Your task to perform on an android device: find photos in the google photos app Image 0: 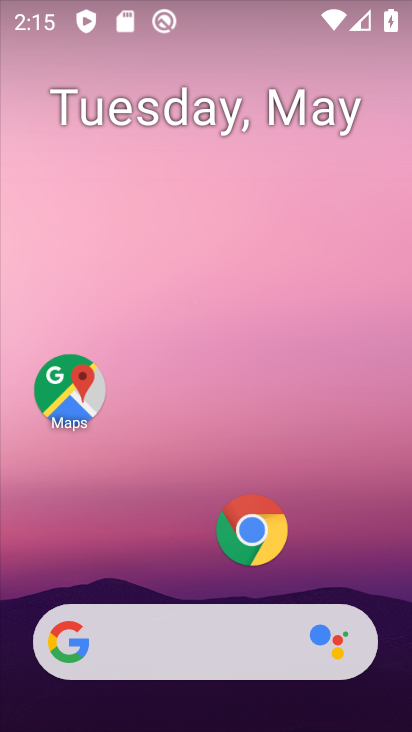
Step 0: drag from (201, 576) to (200, 111)
Your task to perform on an android device: find photos in the google photos app Image 1: 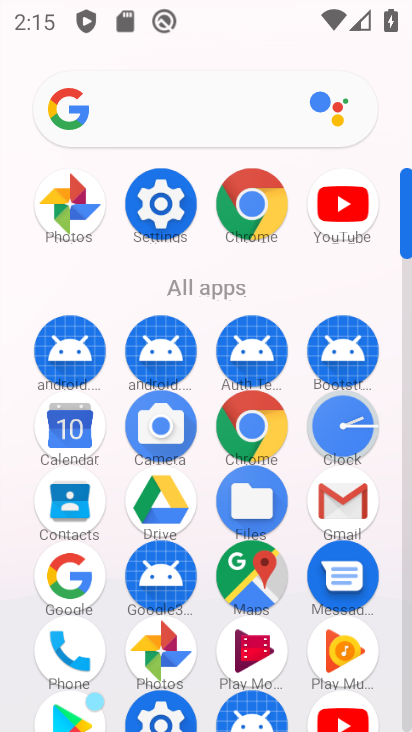
Step 1: click (160, 648)
Your task to perform on an android device: find photos in the google photos app Image 2: 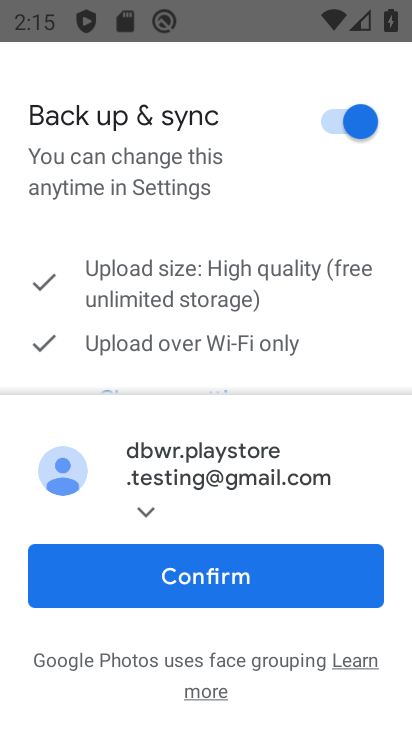
Step 2: click (193, 590)
Your task to perform on an android device: find photos in the google photos app Image 3: 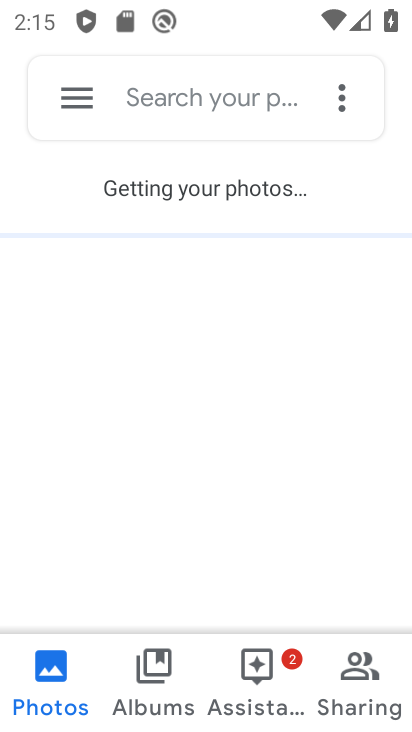
Step 3: task complete